Your task to perform on an android device: Open the phone app and click the voicemail tab. Image 0: 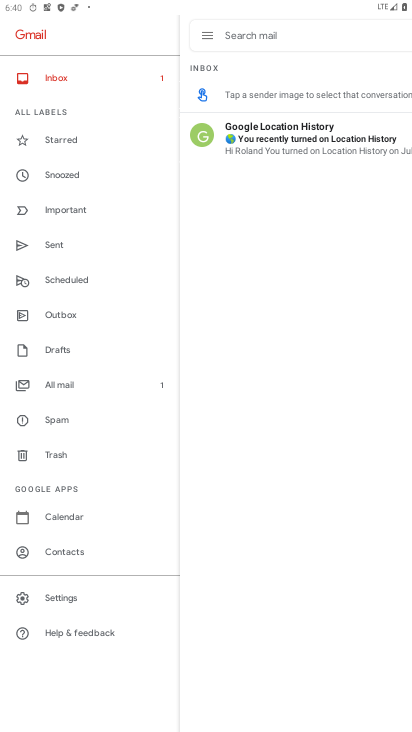
Step 0: press home button
Your task to perform on an android device: Open the phone app and click the voicemail tab. Image 1: 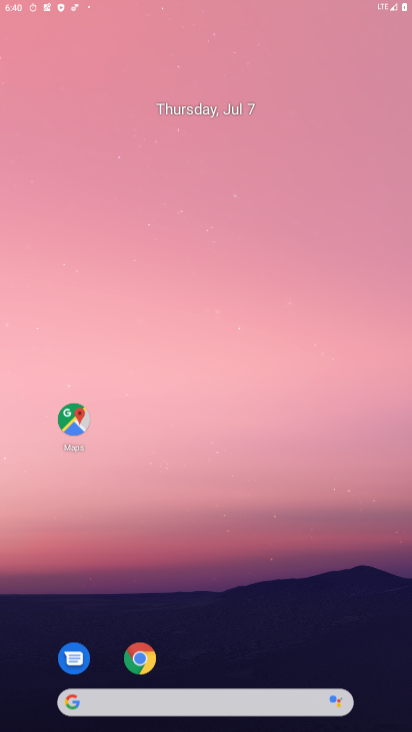
Step 1: drag from (339, 687) to (266, 58)
Your task to perform on an android device: Open the phone app and click the voicemail tab. Image 2: 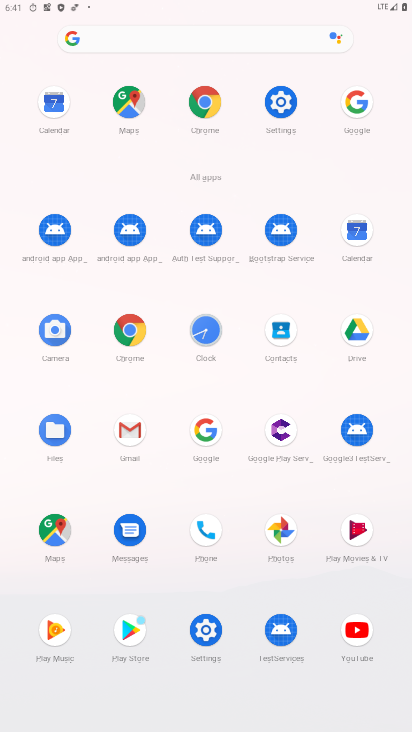
Step 2: click (201, 518)
Your task to perform on an android device: Open the phone app and click the voicemail tab. Image 3: 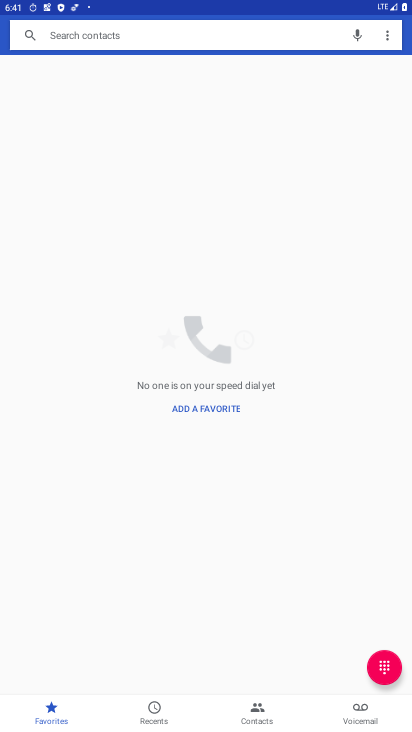
Step 3: click (360, 715)
Your task to perform on an android device: Open the phone app and click the voicemail tab. Image 4: 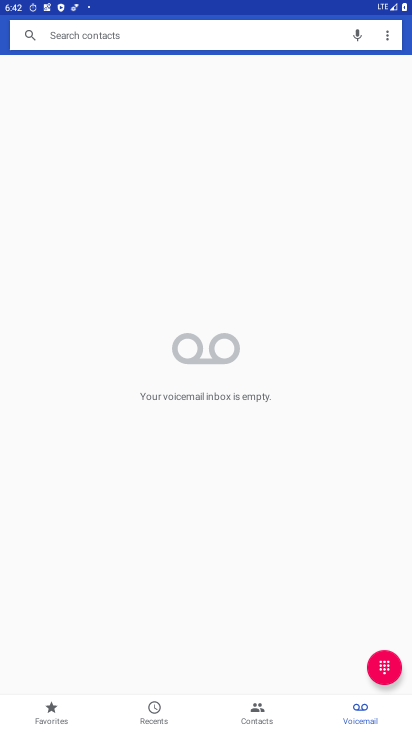
Step 4: task complete